Your task to perform on an android device: change notifications settings Image 0: 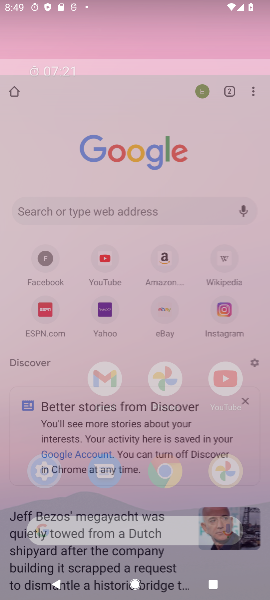
Step 0: press home button
Your task to perform on an android device: change notifications settings Image 1: 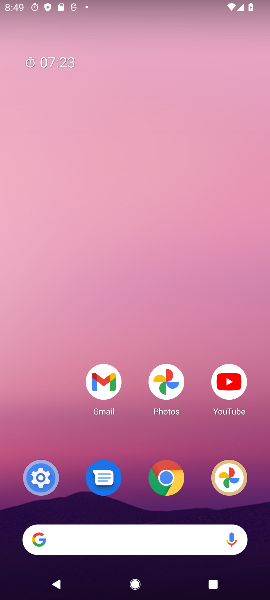
Step 1: drag from (192, 496) to (171, 101)
Your task to perform on an android device: change notifications settings Image 2: 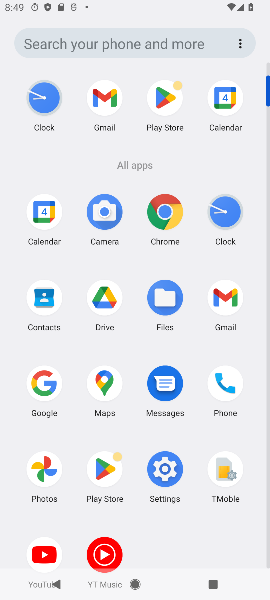
Step 2: click (158, 462)
Your task to perform on an android device: change notifications settings Image 3: 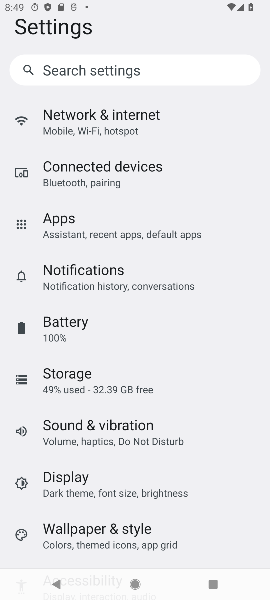
Step 3: click (62, 288)
Your task to perform on an android device: change notifications settings Image 4: 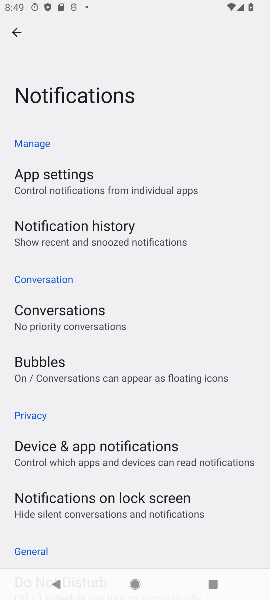
Step 4: drag from (106, 498) to (210, 107)
Your task to perform on an android device: change notifications settings Image 5: 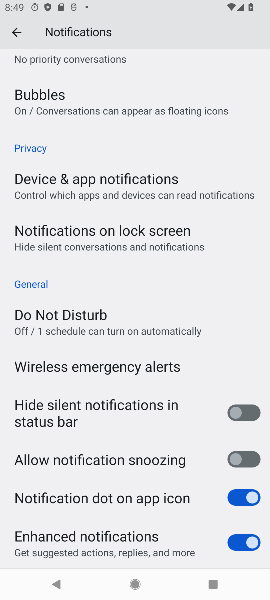
Step 5: click (236, 416)
Your task to perform on an android device: change notifications settings Image 6: 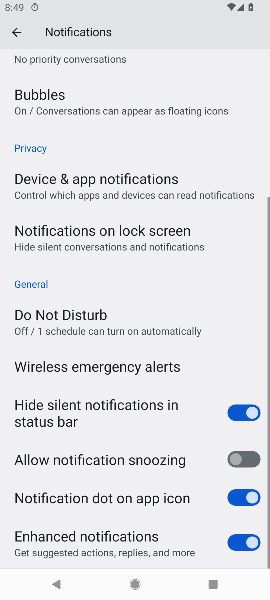
Step 6: click (242, 462)
Your task to perform on an android device: change notifications settings Image 7: 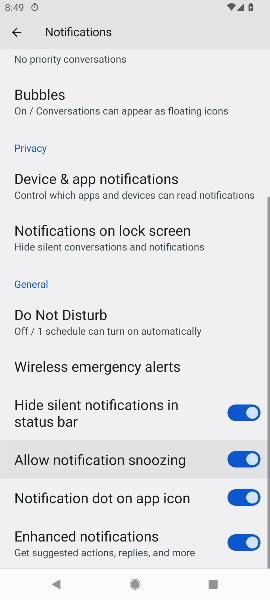
Step 7: click (247, 497)
Your task to perform on an android device: change notifications settings Image 8: 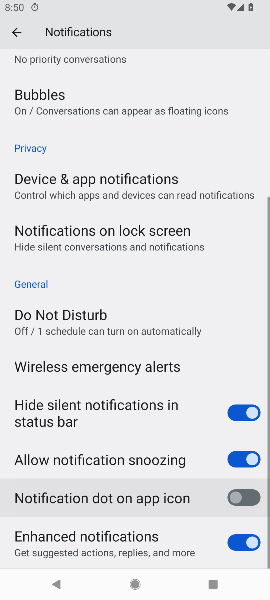
Step 8: click (247, 543)
Your task to perform on an android device: change notifications settings Image 9: 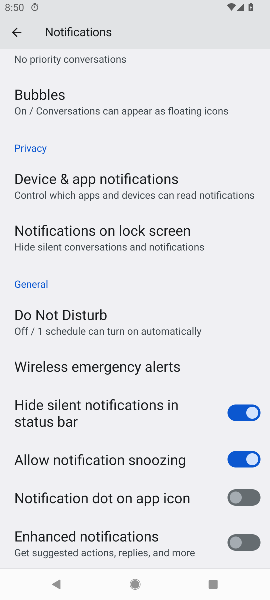
Step 9: task complete